Your task to perform on an android device: Open the calendar and show me this week's events? Image 0: 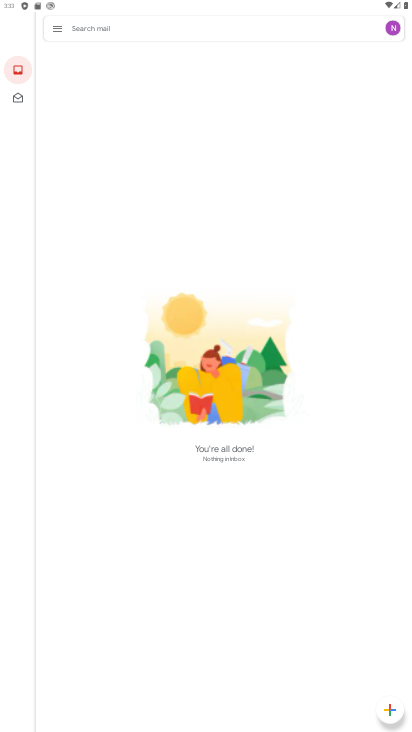
Step 0: press home button
Your task to perform on an android device: Open the calendar and show me this week's events? Image 1: 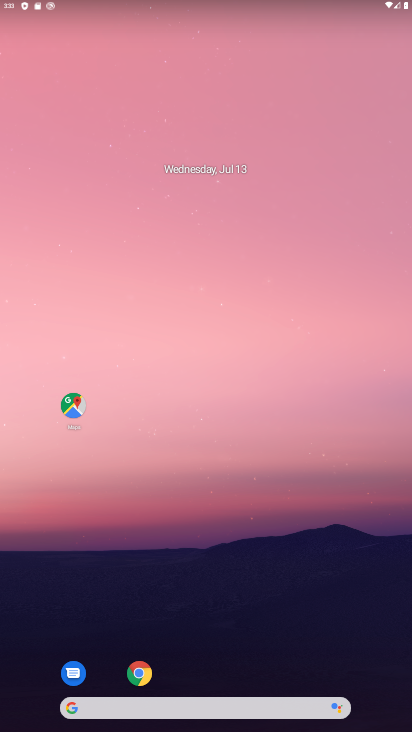
Step 1: drag from (178, 672) to (178, 286)
Your task to perform on an android device: Open the calendar and show me this week's events? Image 2: 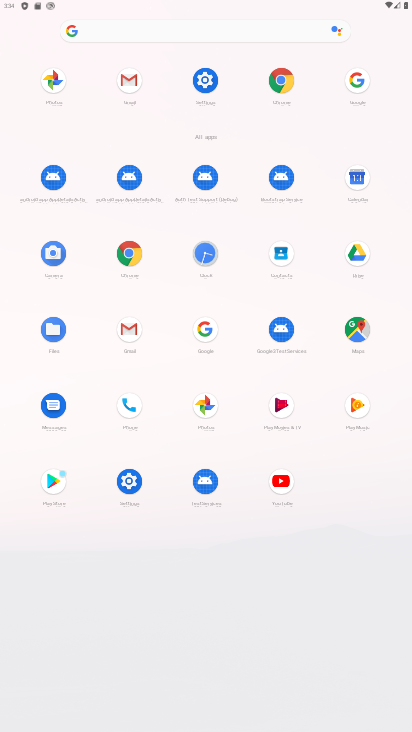
Step 2: click (358, 185)
Your task to perform on an android device: Open the calendar and show me this week's events? Image 3: 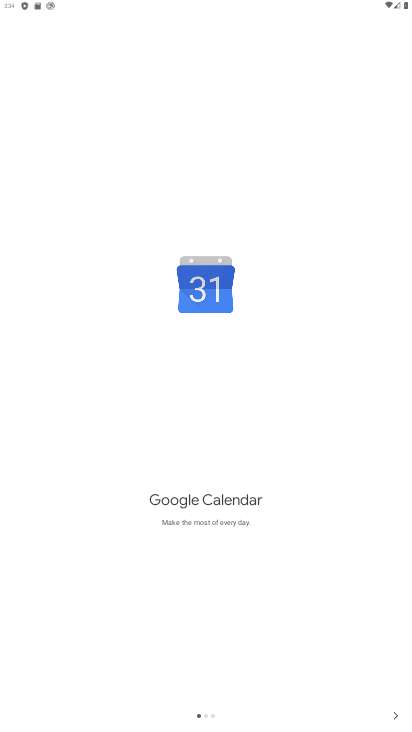
Step 3: click (390, 715)
Your task to perform on an android device: Open the calendar and show me this week's events? Image 4: 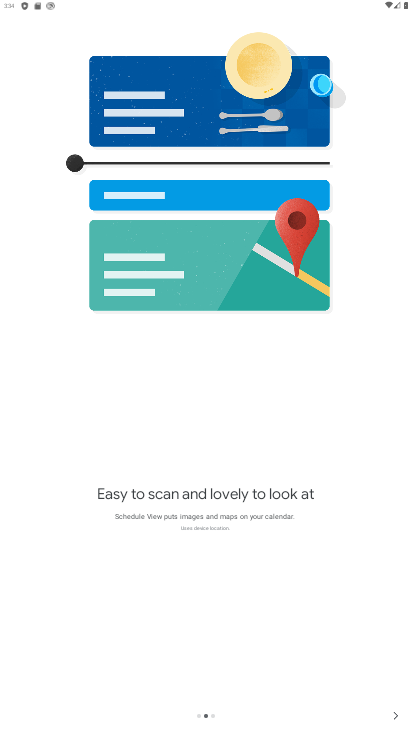
Step 4: click (390, 715)
Your task to perform on an android device: Open the calendar and show me this week's events? Image 5: 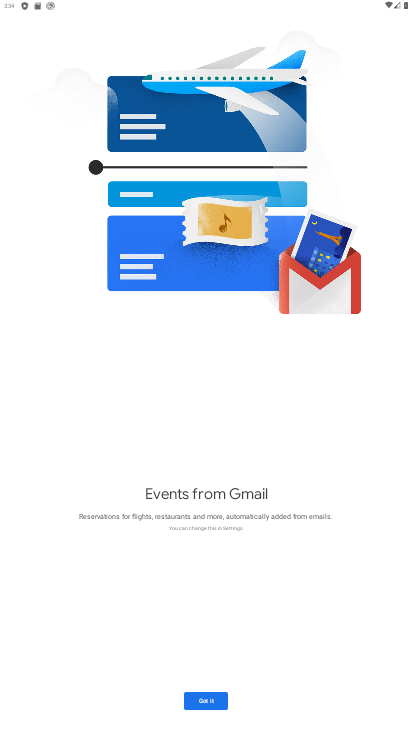
Step 5: click (205, 699)
Your task to perform on an android device: Open the calendar and show me this week's events? Image 6: 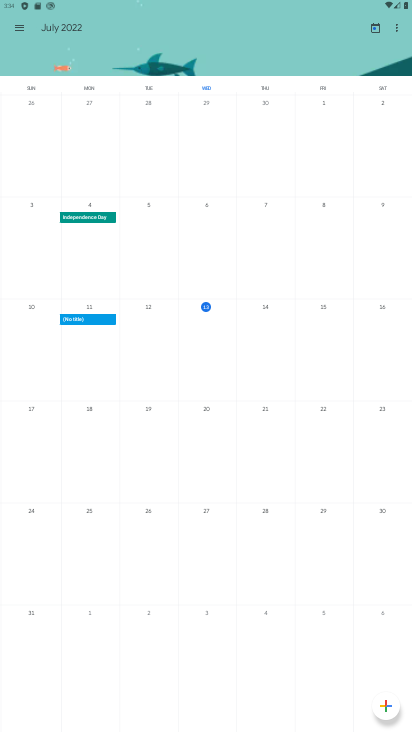
Step 6: click (329, 305)
Your task to perform on an android device: Open the calendar and show me this week's events? Image 7: 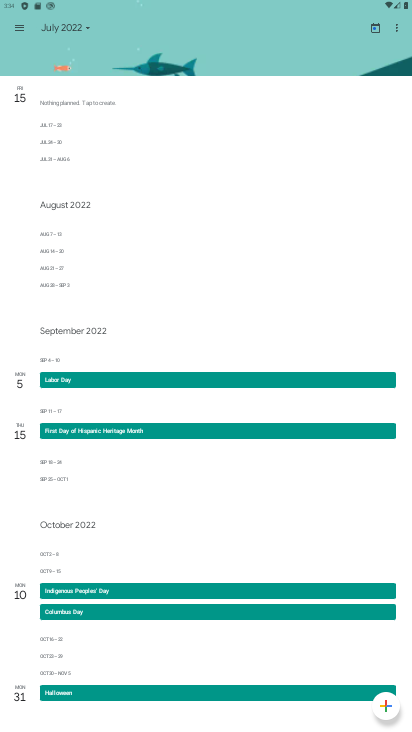
Step 7: task complete